Your task to perform on an android device: Search for the Best selling coffee table on Ikea Image 0: 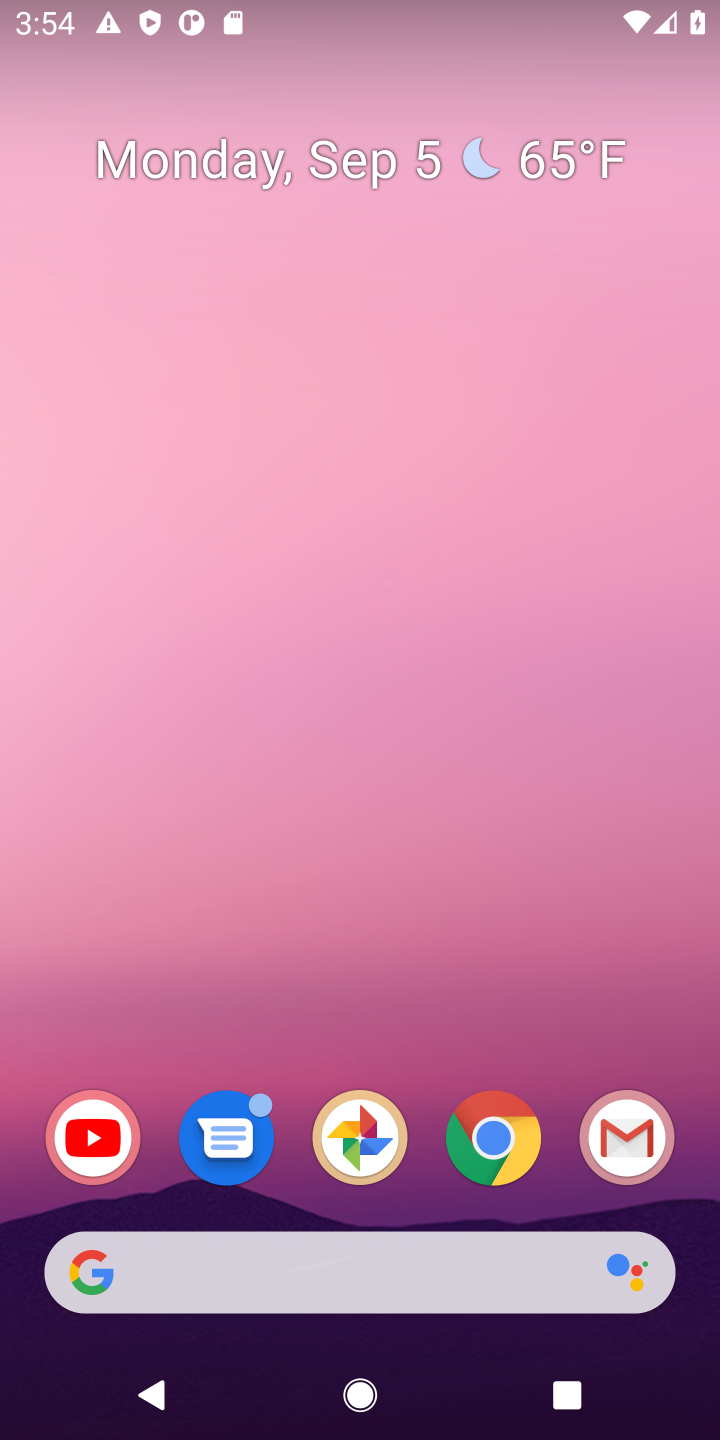
Step 0: click (508, 1142)
Your task to perform on an android device: Search for the Best selling coffee table on Ikea Image 1: 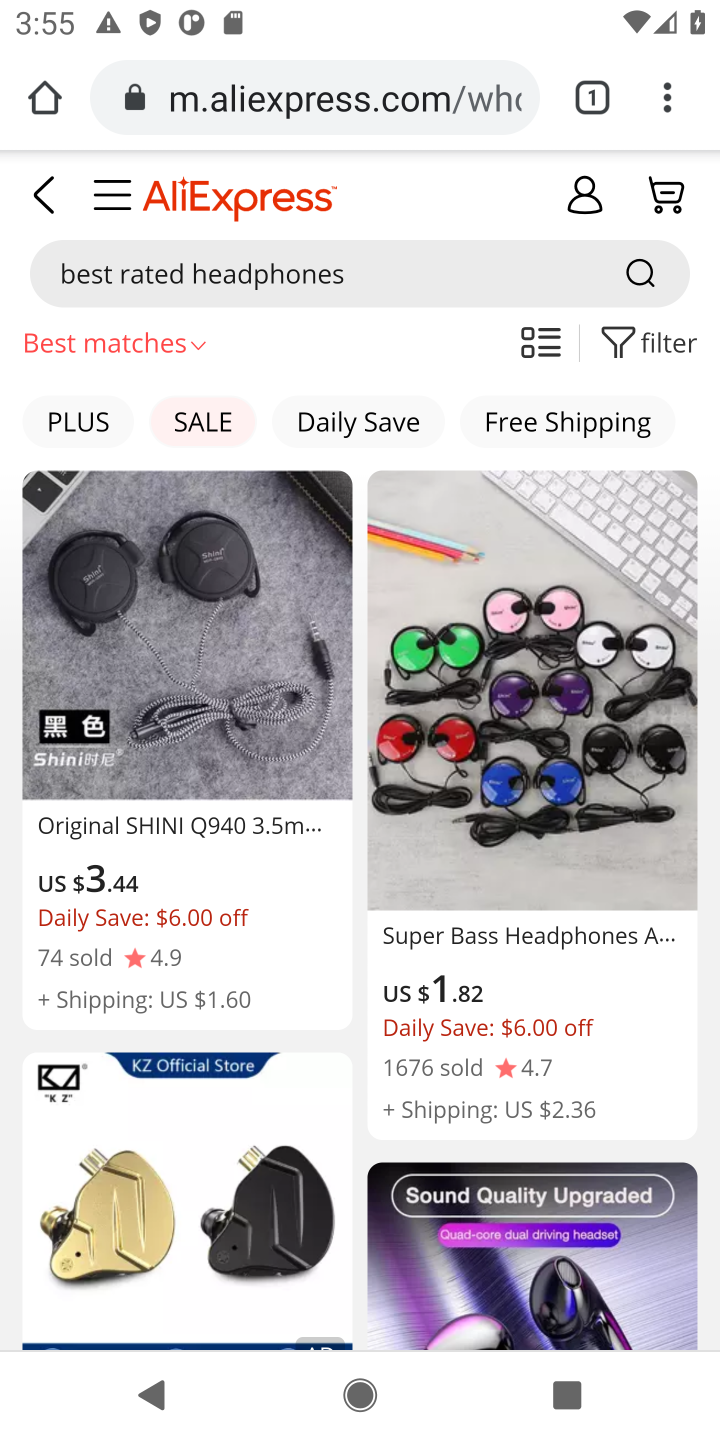
Step 1: click (424, 74)
Your task to perform on an android device: Search for the Best selling coffee table on Ikea Image 2: 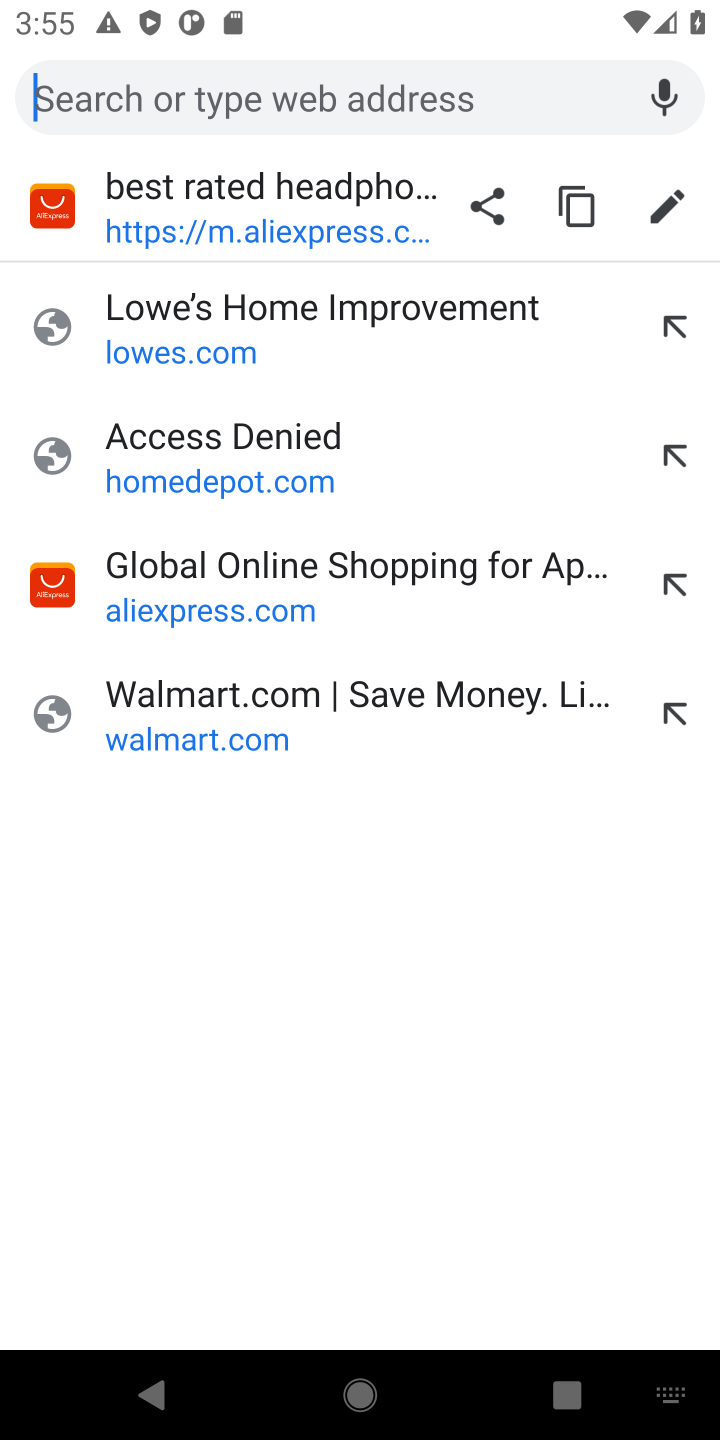
Step 2: type "ikea"
Your task to perform on an android device: Search for the Best selling coffee table on Ikea Image 3: 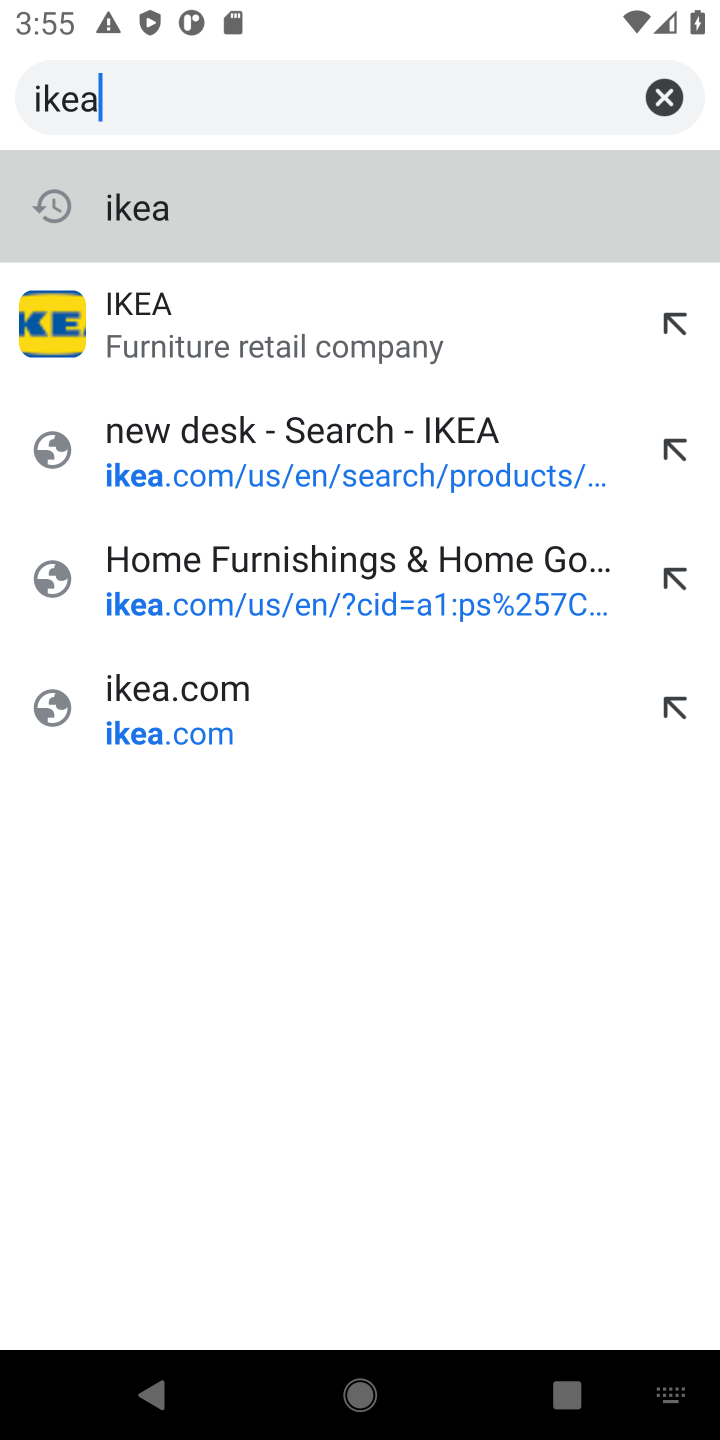
Step 3: click (337, 701)
Your task to perform on an android device: Search for the Best selling coffee table on Ikea Image 4: 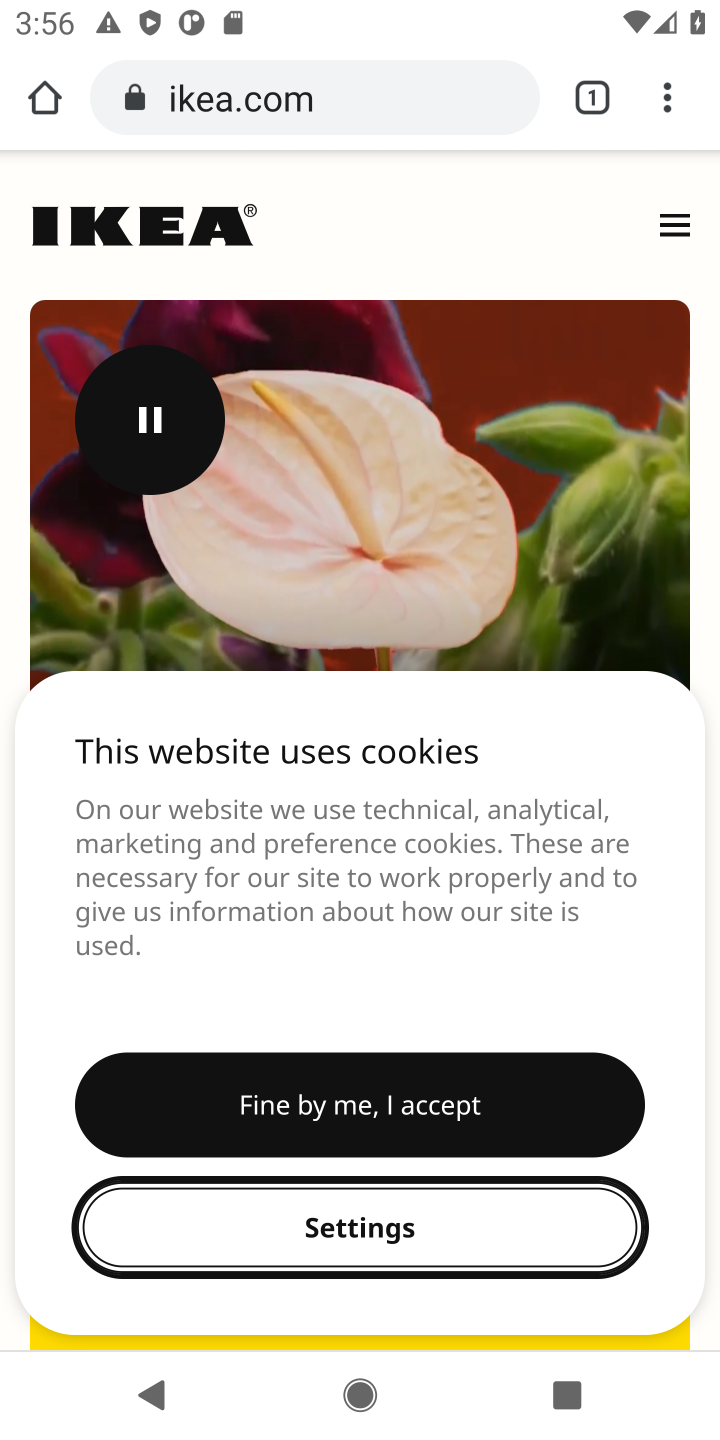
Step 4: click (439, 1120)
Your task to perform on an android device: Search for the Best selling coffee table on Ikea Image 5: 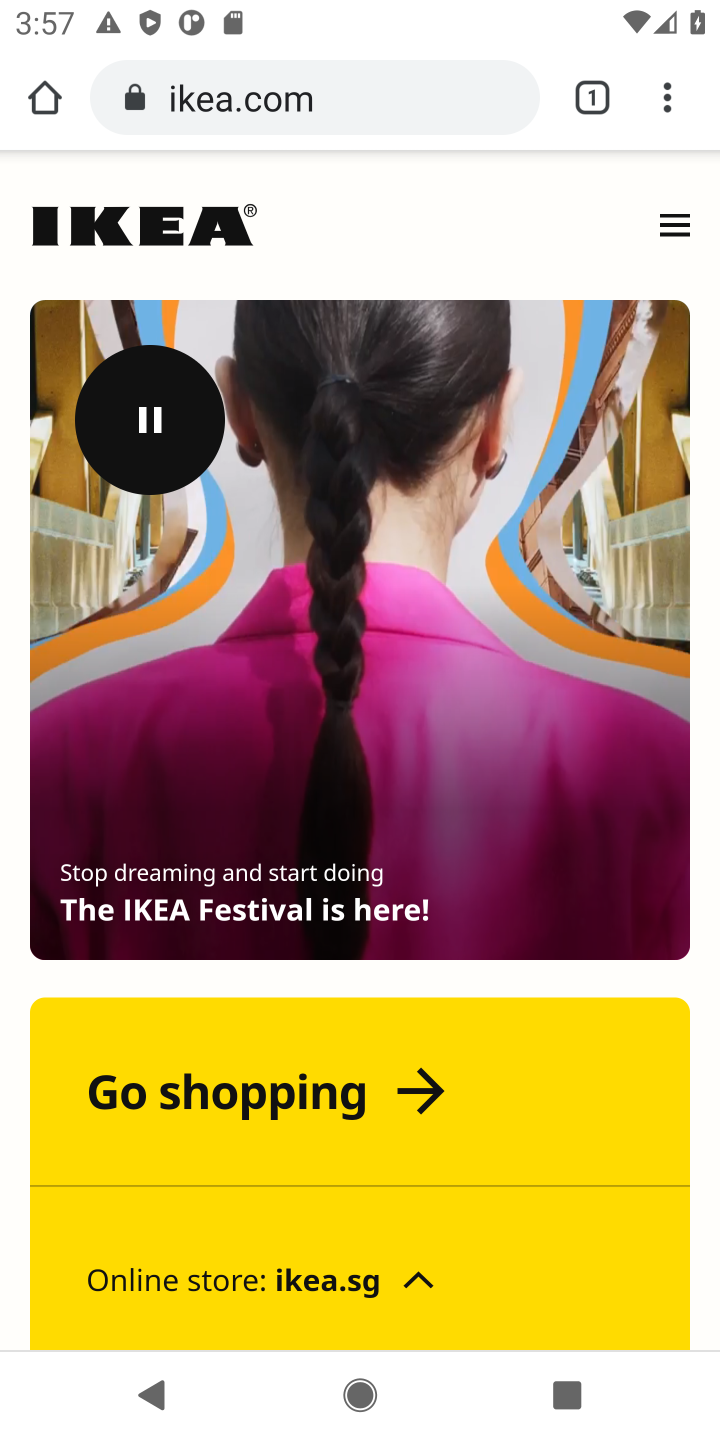
Step 5: task complete